Your task to perform on an android device: turn off translation in the chrome app Image 0: 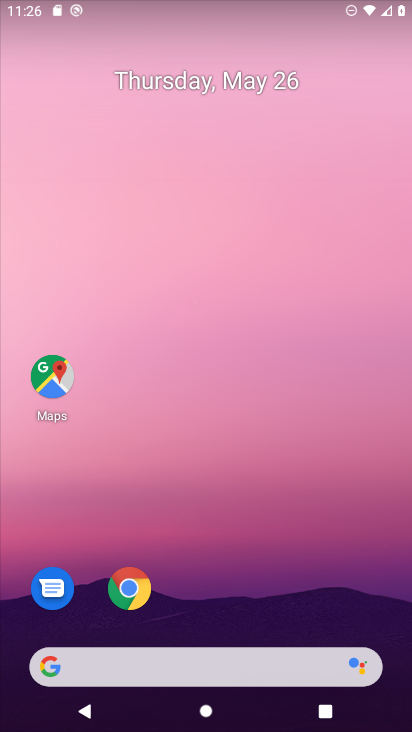
Step 0: click (128, 587)
Your task to perform on an android device: turn off translation in the chrome app Image 1: 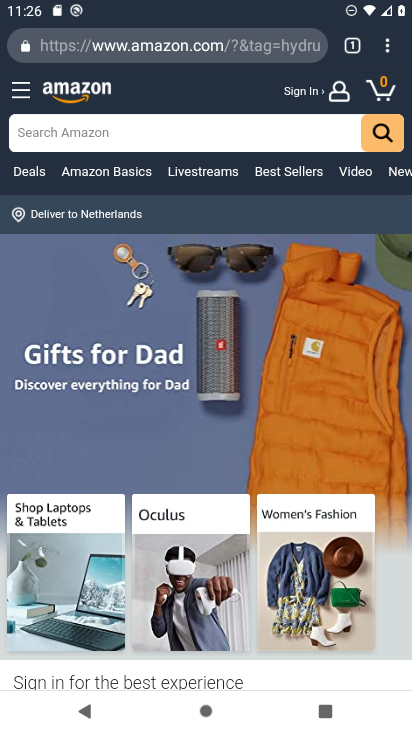
Step 1: click (385, 54)
Your task to perform on an android device: turn off translation in the chrome app Image 2: 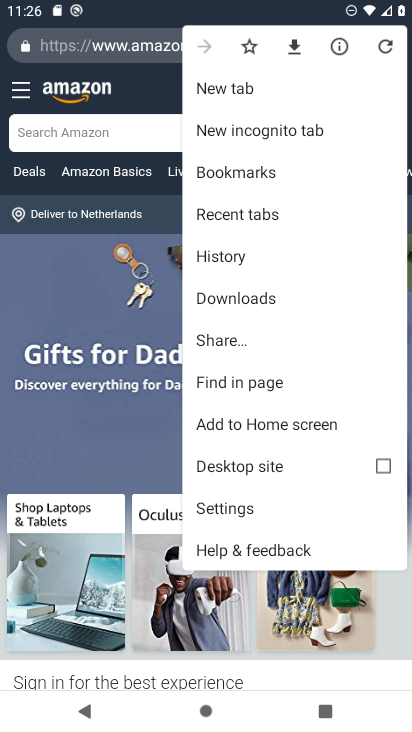
Step 2: click (244, 498)
Your task to perform on an android device: turn off translation in the chrome app Image 3: 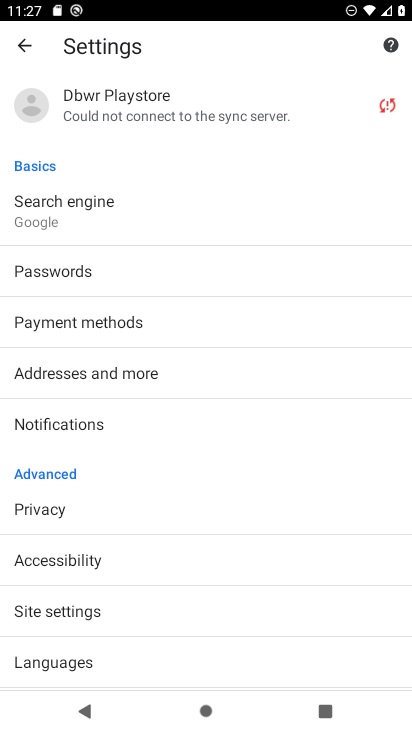
Step 3: drag from (87, 653) to (111, 462)
Your task to perform on an android device: turn off translation in the chrome app Image 4: 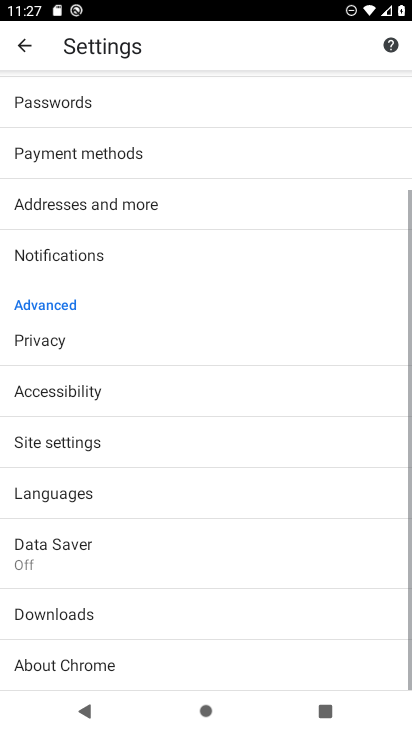
Step 4: click (66, 497)
Your task to perform on an android device: turn off translation in the chrome app Image 5: 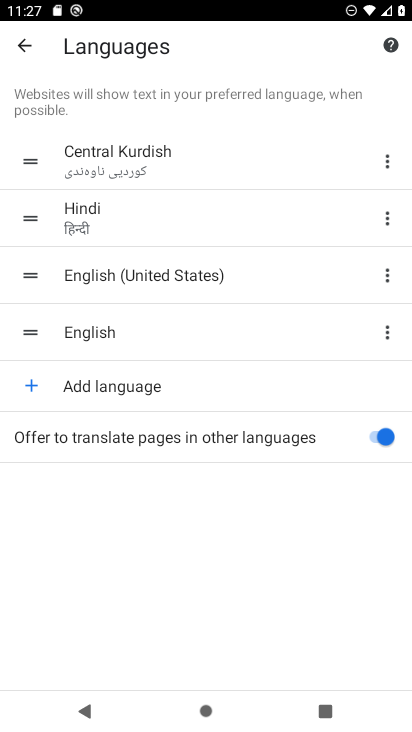
Step 5: click (372, 431)
Your task to perform on an android device: turn off translation in the chrome app Image 6: 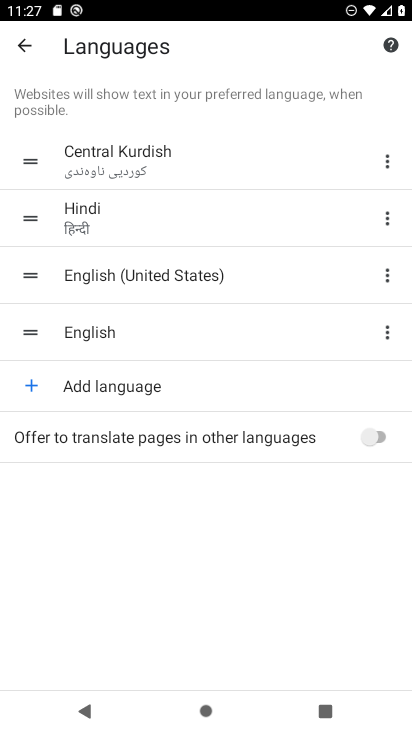
Step 6: task complete